Your task to perform on an android device: toggle show notifications on the lock screen Image 0: 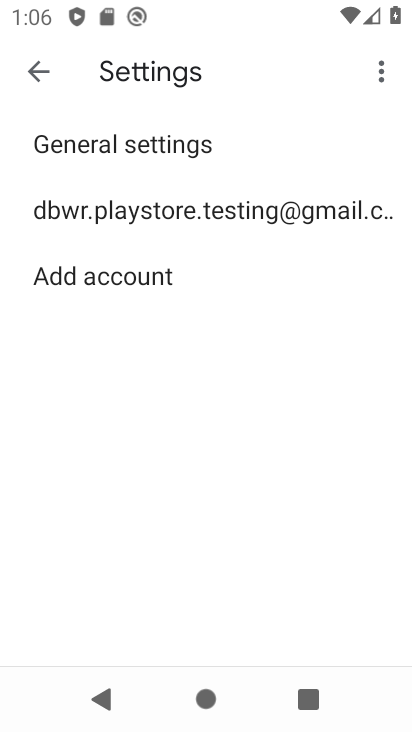
Step 0: press home button
Your task to perform on an android device: toggle show notifications on the lock screen Image 1: 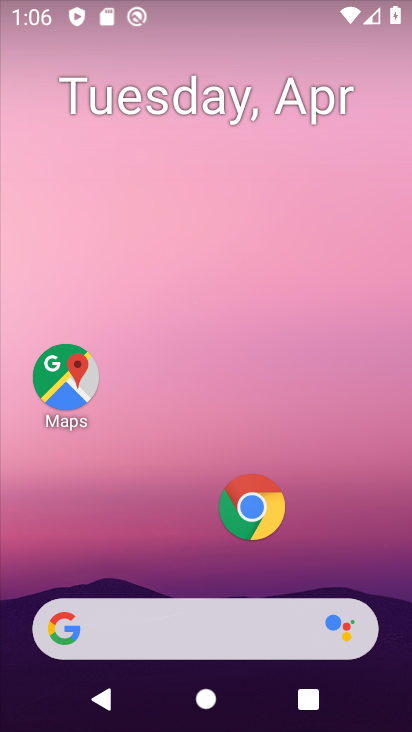
Step 1: drag from (170, 525) to (185, 89)
Your task to perform on an android device: toggle show notifications on the lock screen Image 2: 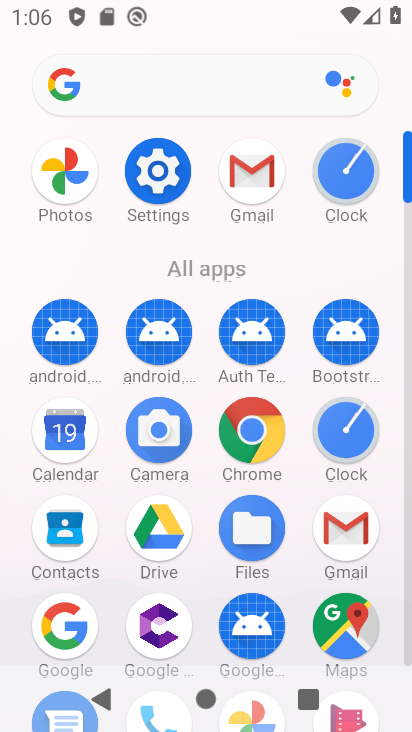
Step 2: click (155, 164)
Your task to perform on an android device: toggle show notifications on the lock screen Image 3: 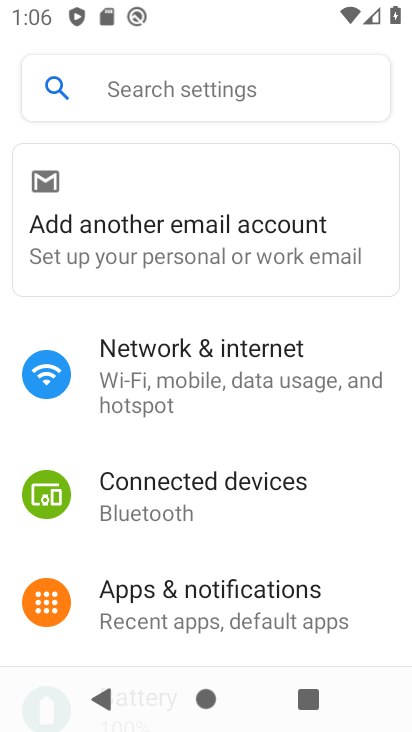
Step 3: drag from (170, 537) to (225, 271)
Your task to perform on an android device: toggle show notifications on the lock screen Image 4: 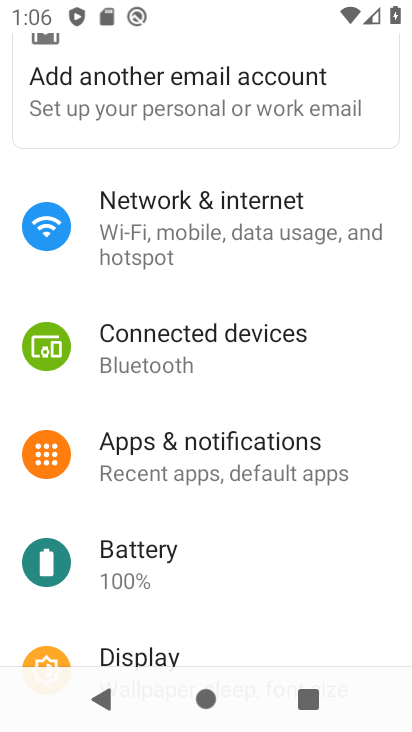
Step 4: click (201, 448)
Your task to perform on an android device: toggle show notifications on the lock screen Image 5: 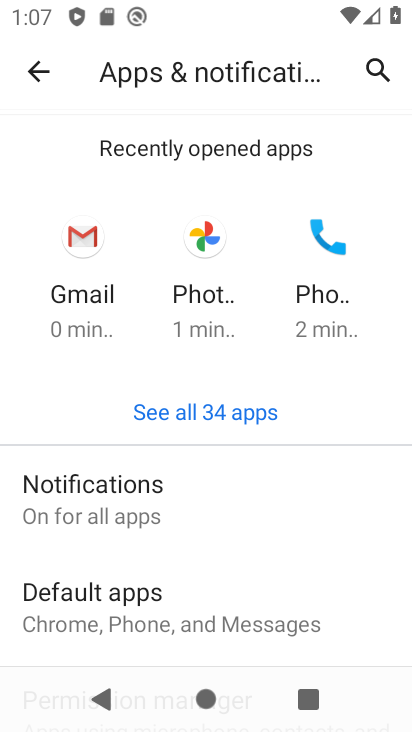
Step 5: drag from (165, 550) to (192, 272)
Your task to perform on an android device: toggle show notifications on the lock screen Image 6: 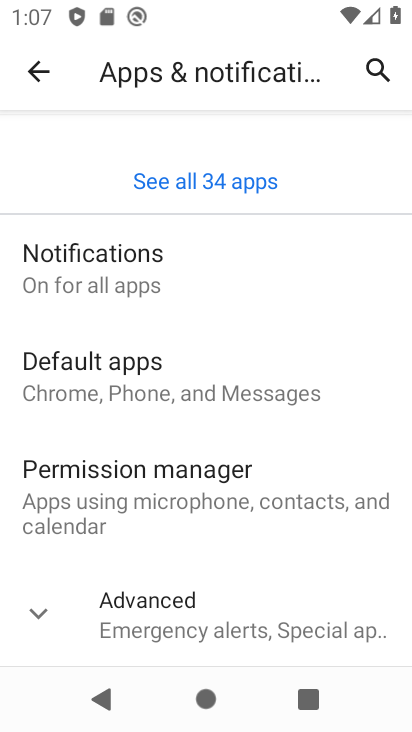
Step 6: click (167, 612)
Your task to perform on an android device: toggle show notifications on the lock screen Image 7: 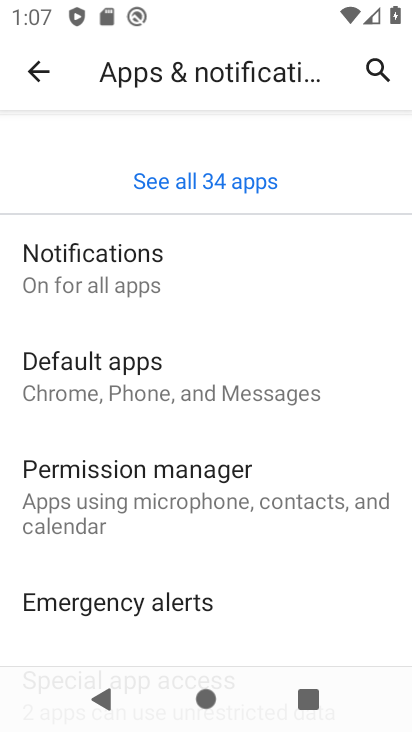
Step 7: drag from (168, 606) to (219, 240)
Your task to perform on an android device: toggle show notifications on the lock screen Image 8: 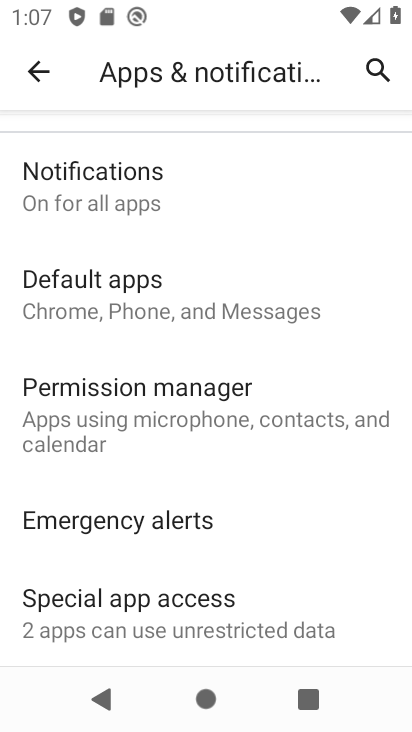
Step 8: click (133, 163)
Your task to perform on an android device: toggle show notifications on the lock screen Image 9: 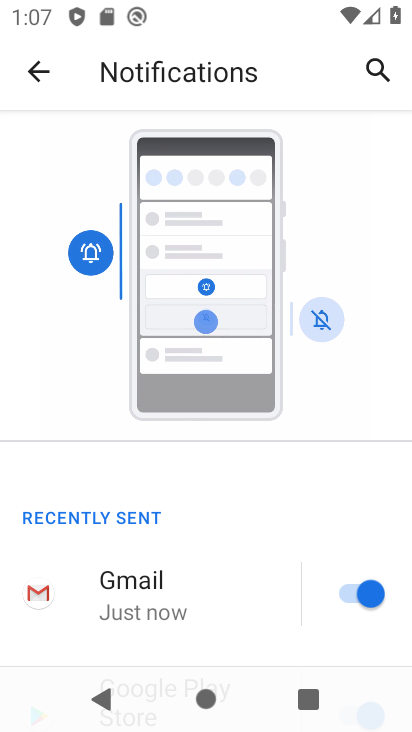
Step 9: drag from (187, 551) to (264, 182)
Your task to perform on an android device: toggle show notifications on the lock screen Image 10: 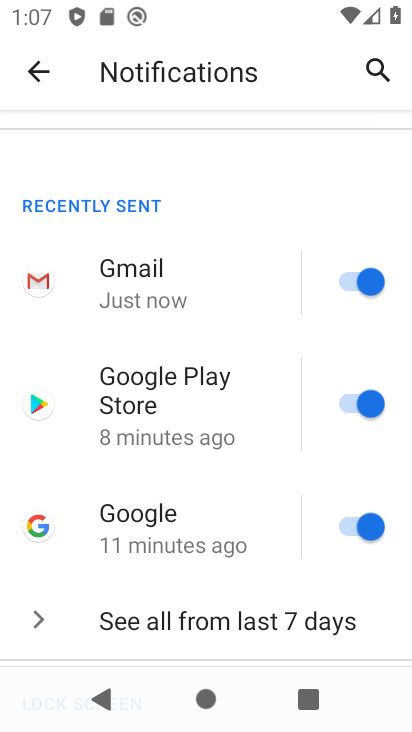
Step 10: drag from (204, 526) to (234, 273)
Your task to perform on an android device: toggle show notifications on the lock screen Image 11: 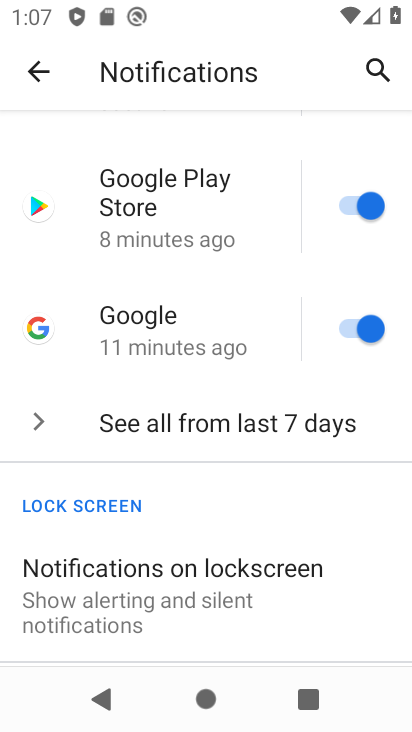
Step 11: click (181, 580)
Your task to perform on an android device: toggle show notifications on the lock screen Image 12: 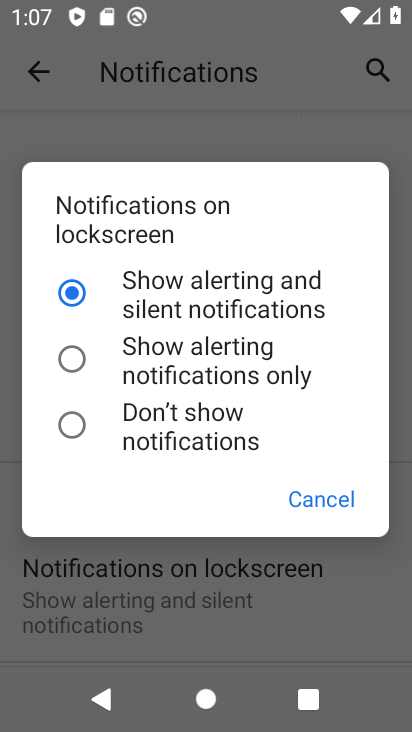
Step 12: click (304, 493)
Your task to perform on an android device: toggle show notifications on the lock screen Image 13: 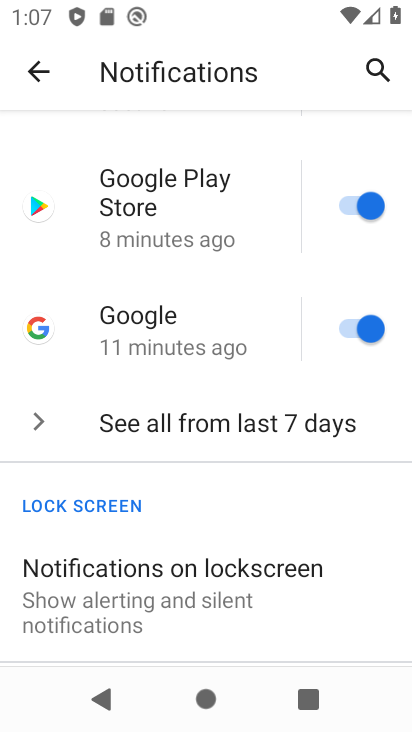
Step 13: task complete